Your task to perform on an android device: see tabs open on other devices in the chrome app Image 0: 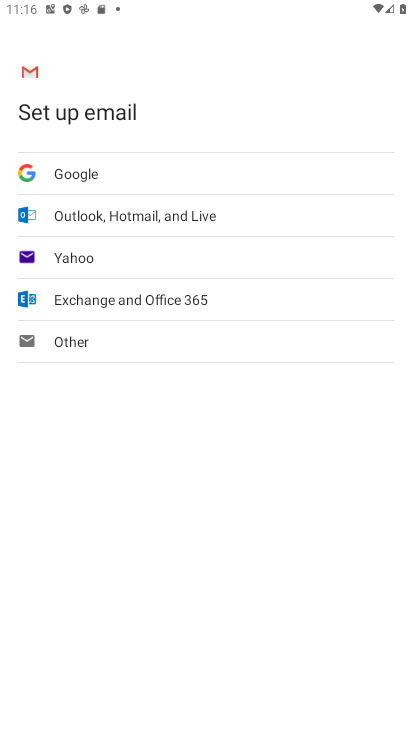
Step 0: press home button
Your task to perform on an android device: see tabs open on other devices in the chrome app Image 1: 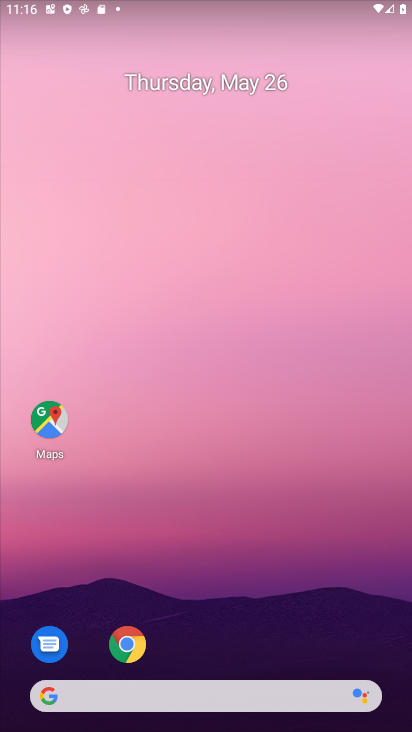
Step 1: drag from (326, 619) to (317, 40)
Your task to perform on an android device: see tabs open on other devices in the chrome app Image 2: 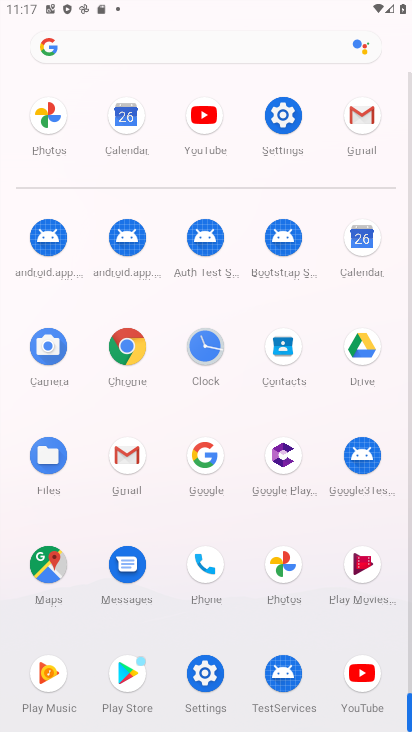
Step 2: click (132, 356)
Your task to perform on an android device: see tabs open on other devices in the chrome app Image 3: 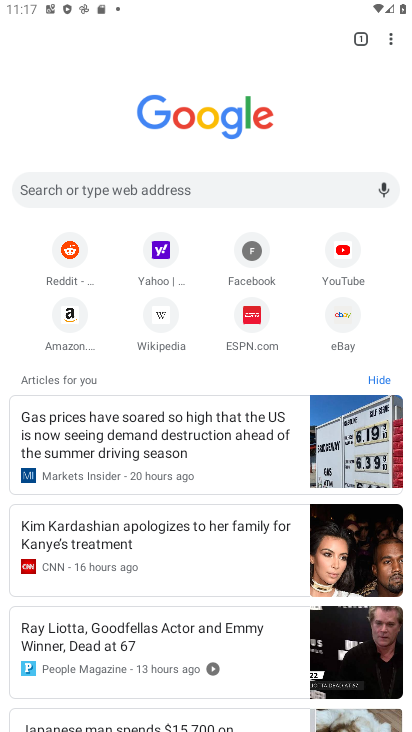
Step 3: task complete